Your task to perform on an android device: delete browsing data in the chrome app Image 0: 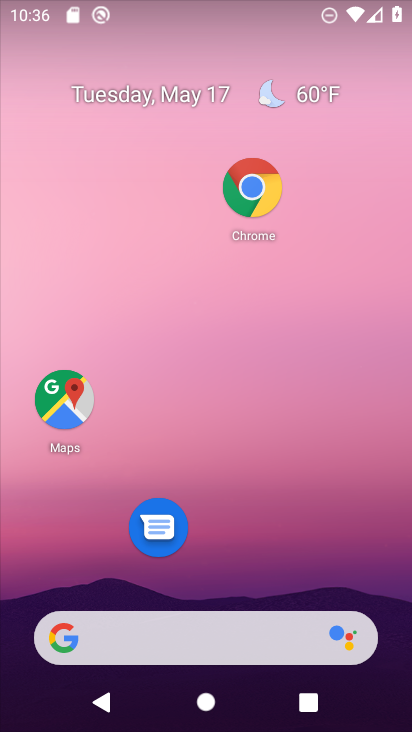
Step 0: click (249, 244)
Your task to perform on an android device: delete browsing data in the chrome app Image 1: 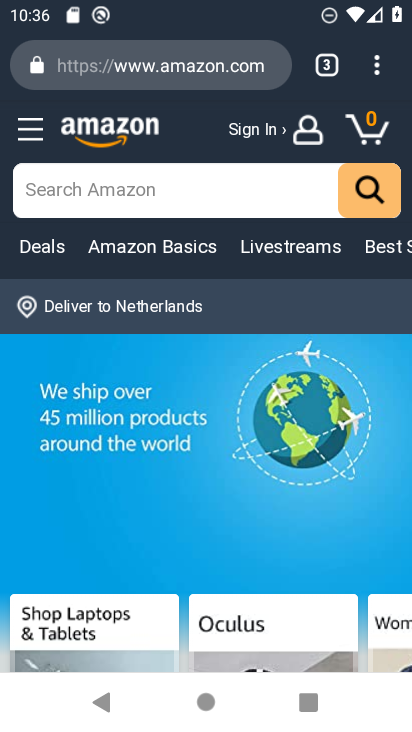
Step 1: click (374, 73)
Your task to perform on an android device: delete browsing data in the chrome app Image 2: 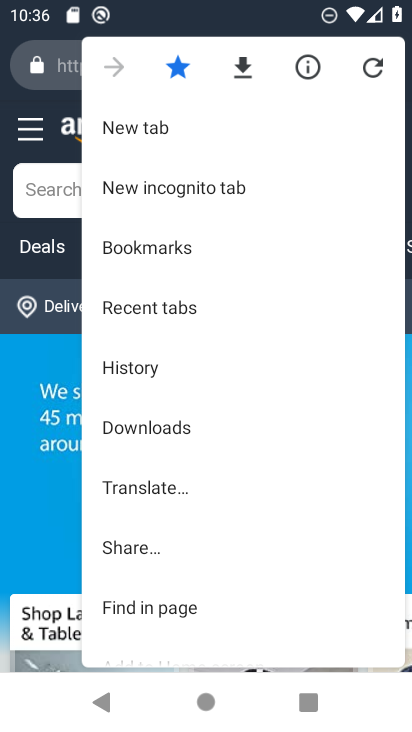
Step 2: drag from (193, 565) to (222, 327)
Your task to perform on an android device: delete browsing data in the chrome app Image 3: 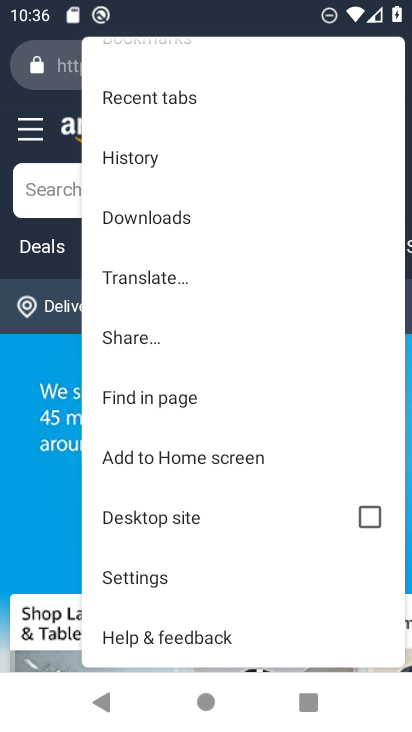
Step 3: click (177, 182)
Your task to perform on an android device: delete browsing data in the chrome app Image 4: 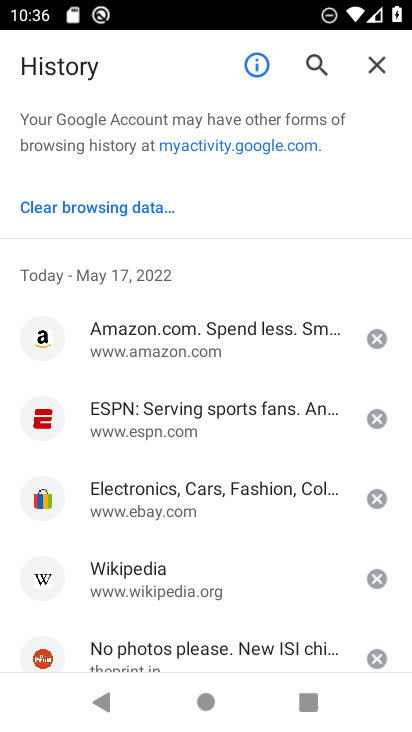
Step 4: drag from (157, 530) to (184, 290)
Your task to perform on an android device: delete browsing data in the chrome app Image 5: 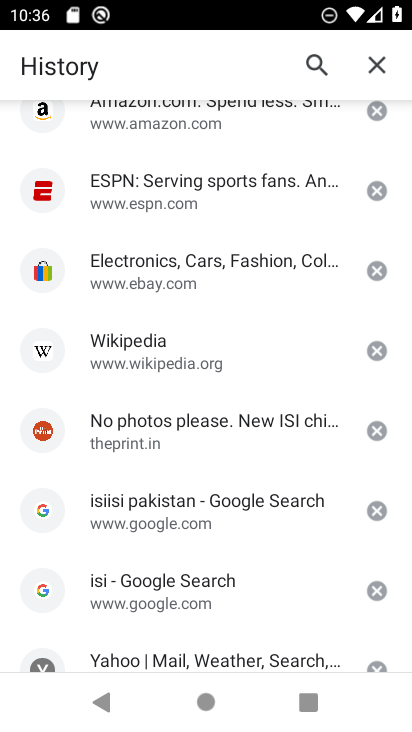
Step 5: drag from (100, 225) to (69, 668)
Your task to perform on an android device: delete browsing data in the chrome app Image 6: 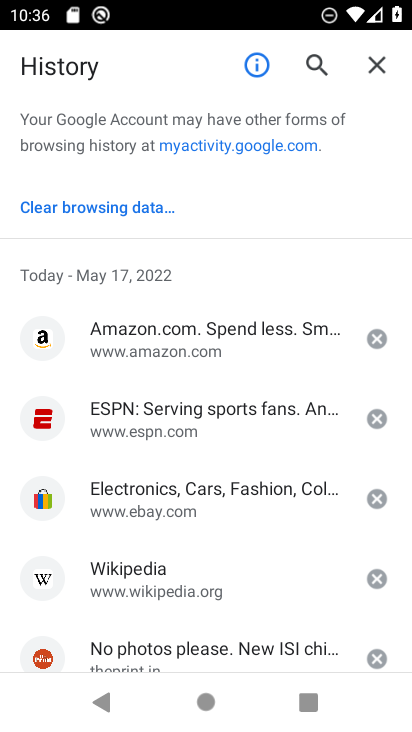
Step 6: click (132, 219)
Your task to perform on an android device: delete browsing data in the chrome app Image 7: 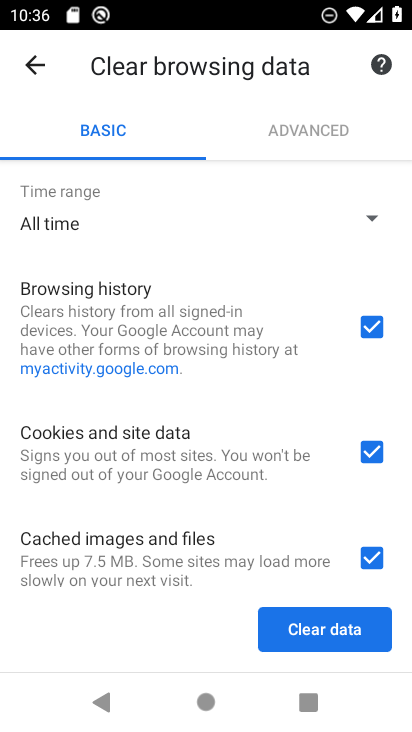
Step 7: click (364, 631)
Your task to perform on an android device: delete browsing data in the chrome app Image 8: 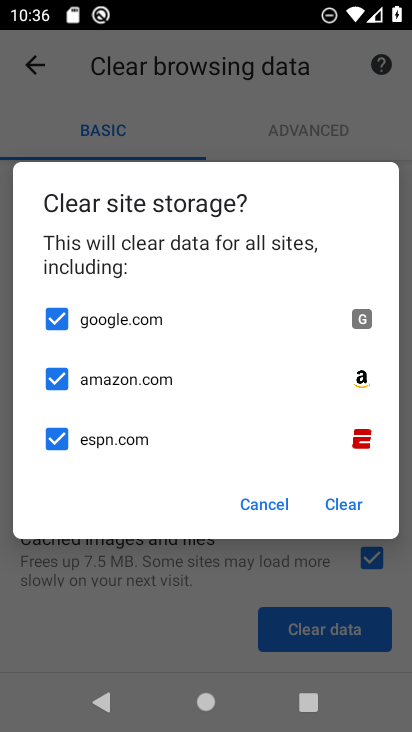
Step 8: click (323, 499)
Your task to perform on an android device: delete browsing data in the chrome app Image 9: 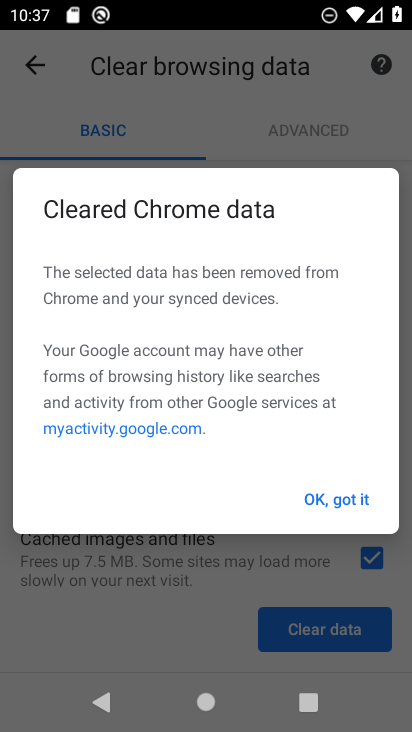
Step 9: task complete